Your task to perform on an android device: turn smart compose on in the gmail app Image 0: 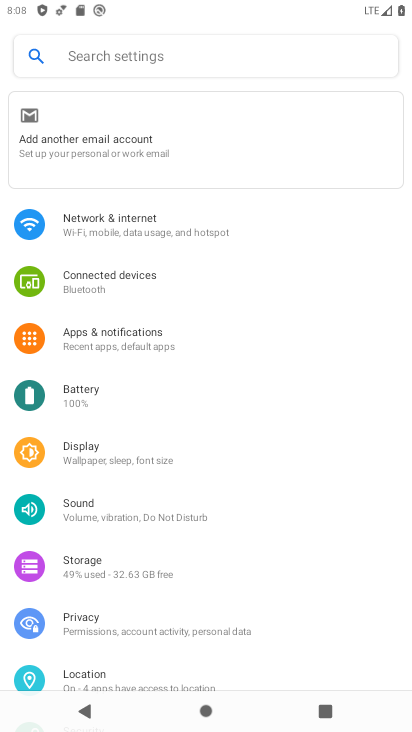
Step 0: press home button
Your task to perform on an android device: turn smart compose on in the gmail app Image 1: 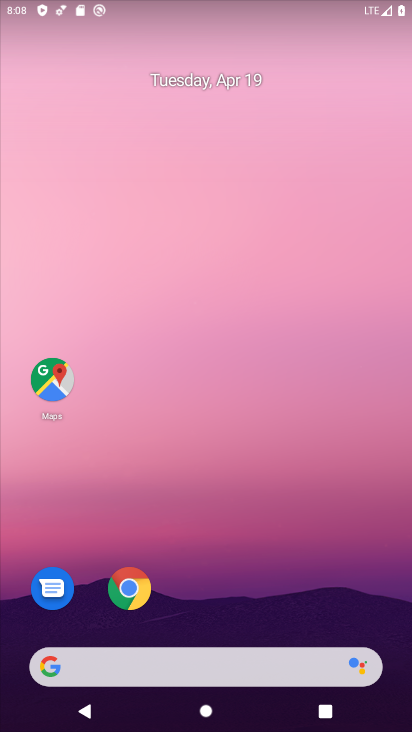
Step 1: drag from (196, 603) to (231, 122)
Your task to perform on an android device: turn smart compose on in the gmail app Image 2: 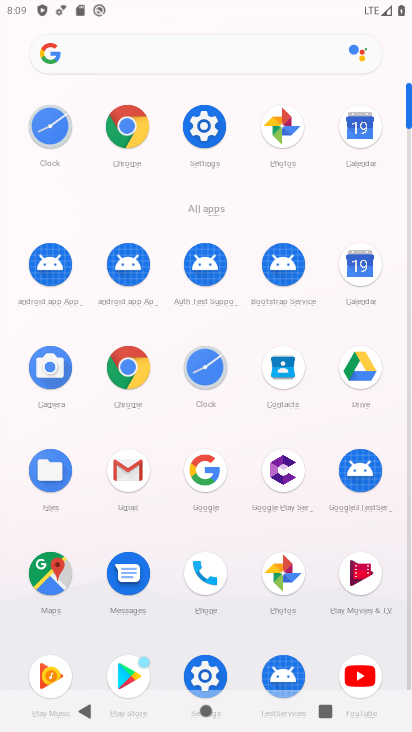
Step 2: click (127, 460)
Your task to perform on an android device: turn smart compose on in the gmail app Image 3: 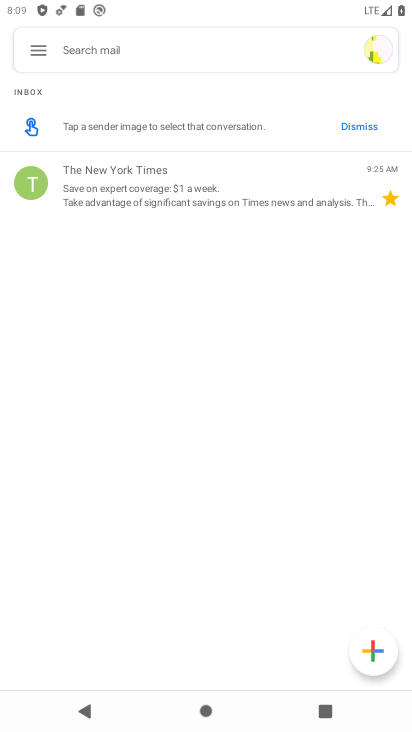
Step 3: click (33, 43)
Your task to perform on an android device: turn smart compose on in the gmail app Image 4: 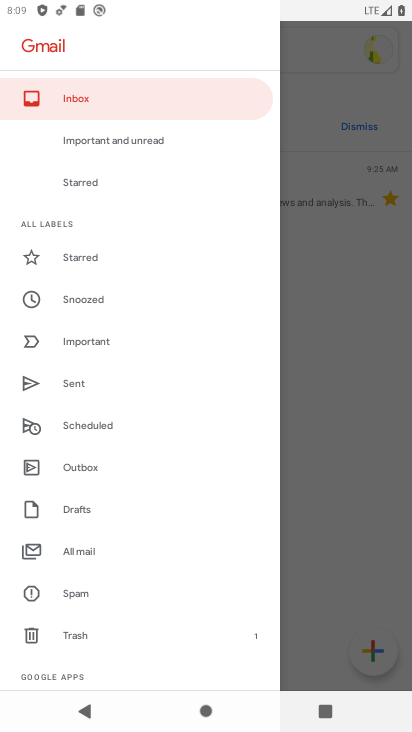
Step 4: drag from (80, 584) to (98, 174)
Your task to perform on an android device: turn smart compose on in the gmail app Image 5: 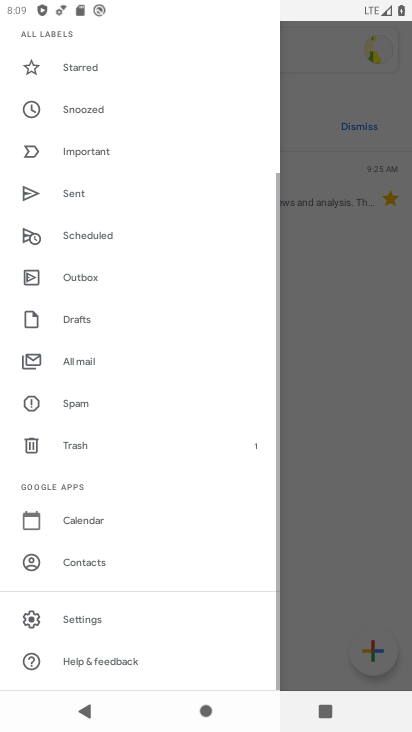
Step 5: click (91, 612)
Your task to perform on an android device: turn smart compose on in the gmail app Image 6: 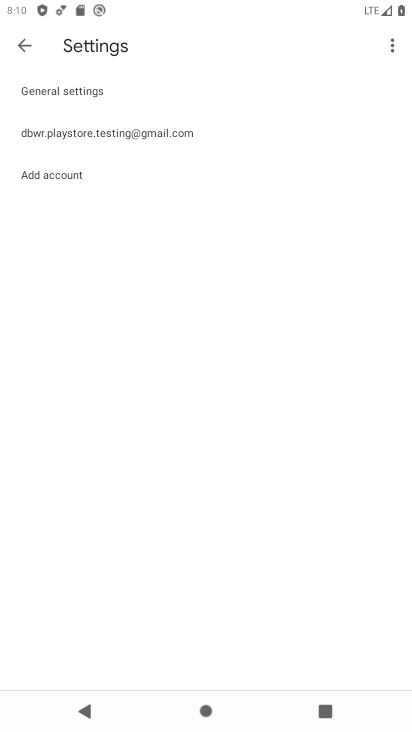
Step 6: click (138, 128)
Your task to perform on an android device: turn smart compose on in the gmail app Image 7: 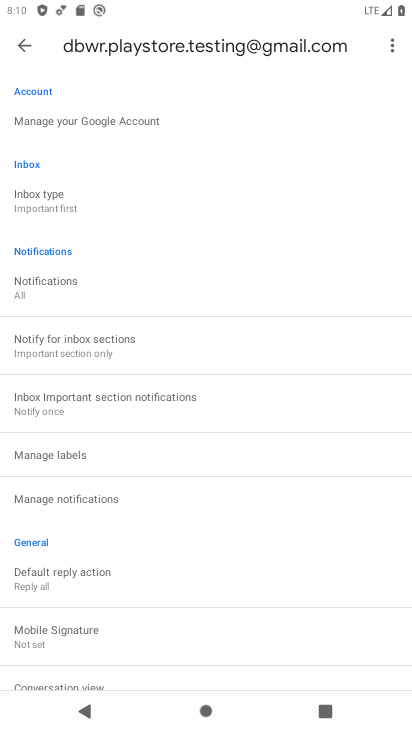
Step 7: task complete